Your task to perform on an android device: change the clock display to show seconds Image 0: 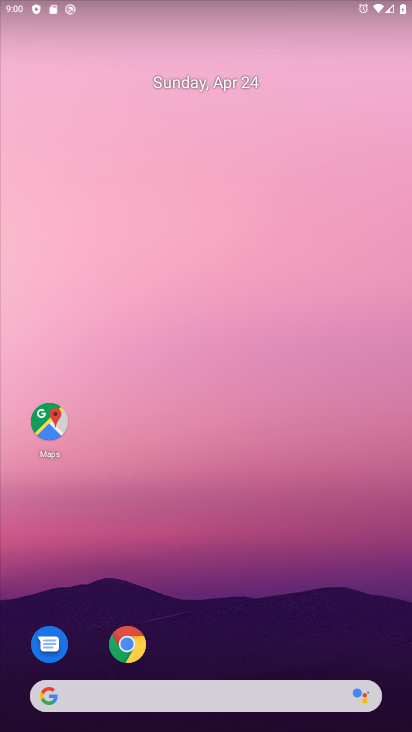
Step 0: drag from (203, 663) to (239, 0)
Your task to perform on an android device: change the clock display to show seconds Image 1: 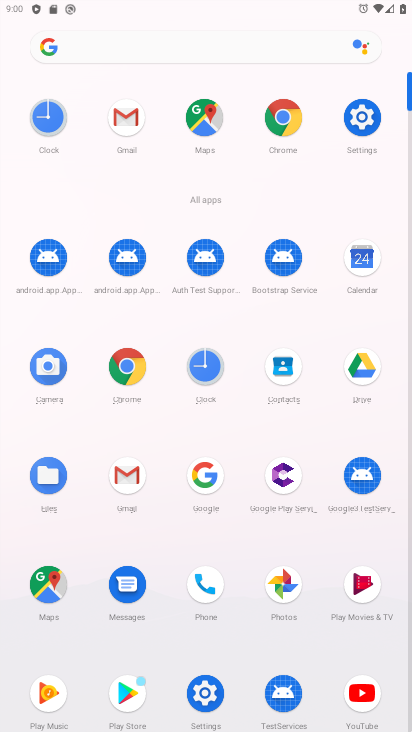
Step 1: click (202, 371)
Your task to perform on an android device: change the clock display to show seconds Image 2: 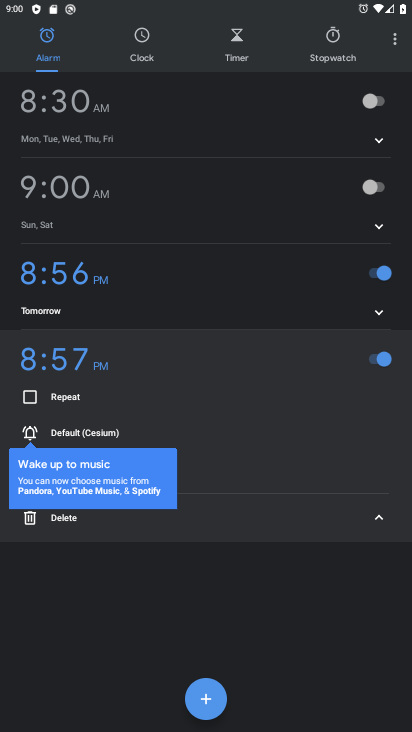
Step 2: click (395, 43)
Your task to perform on an android device: change the clock display to show seconds Image 3: 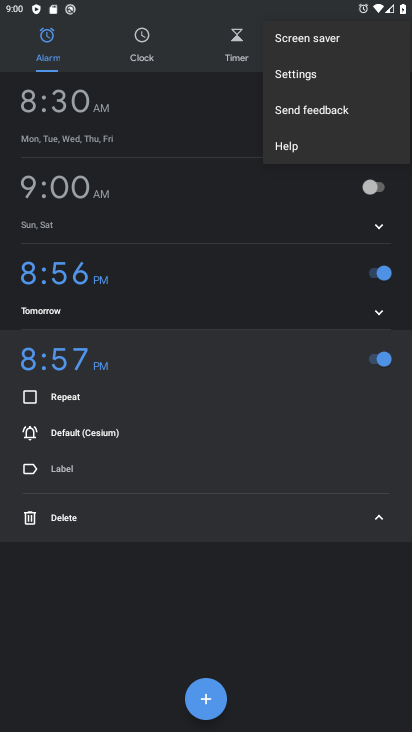
Step 3: click (377, 66)
Your task to perform on an android device: change the clock display to show seconds Image 4: 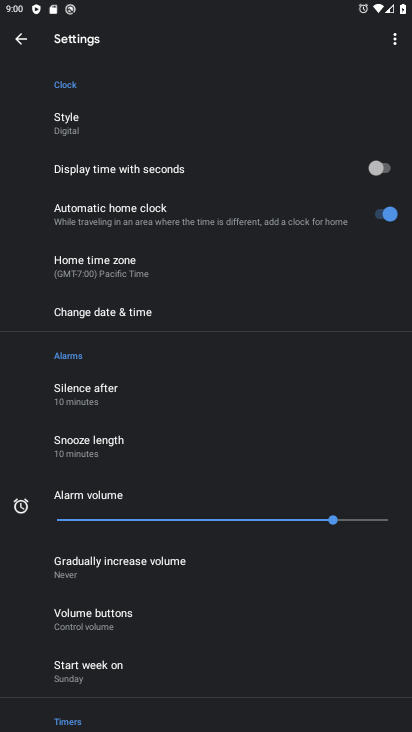
Step 4: click (375, 161)
Your task to perform on an android device: change the clock display to show seconds Image 5: 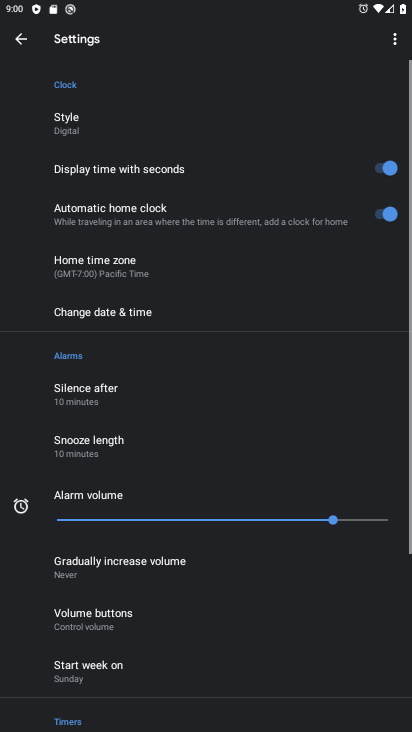
Step 5: task complete